Your task to perform on an android device: set default search engine in the chrome app Image 0: 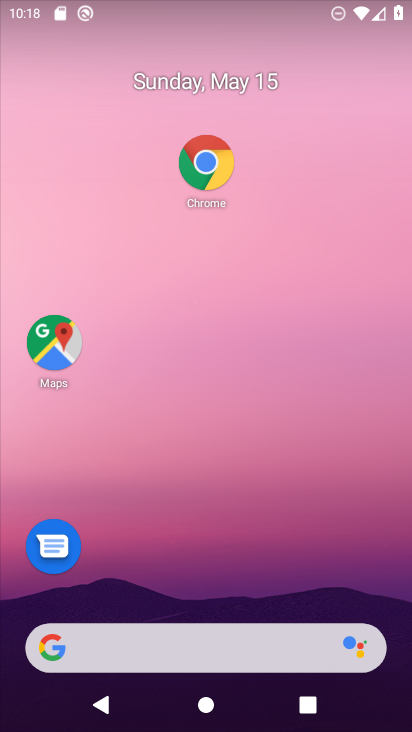
Step 0: click (211, 144)
Your task to perform on an android device: set default search engine in the chrome app Image 1: 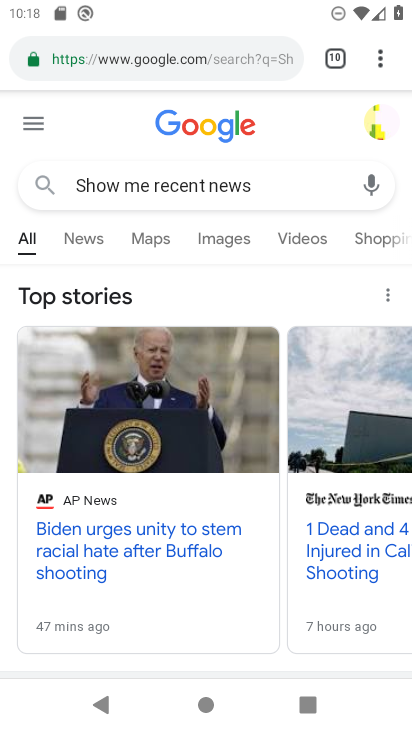
Step 1: click (370, 45)
Your task to perform on an android device: set default search engine in the chrome app Image 2: 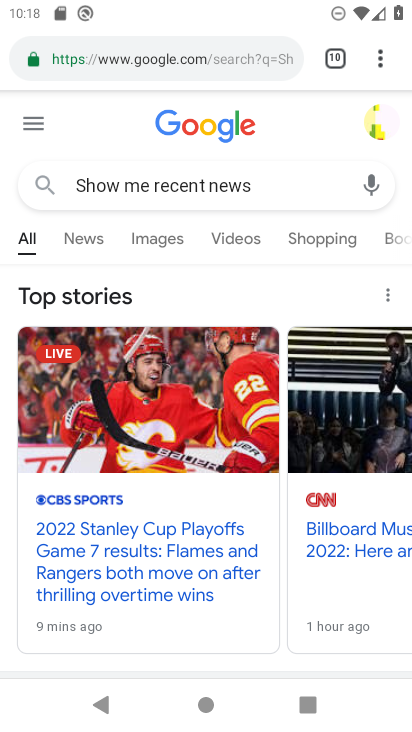
Step 2: click (369, 53)
Your task to perform on an android device: set default search engine in the chrome app Image 3: 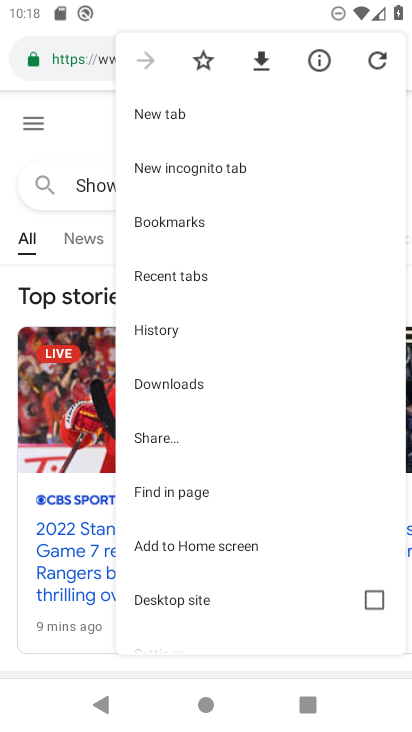
Step 3: drag from (210, 528) to (267, 167)
Your task to perform on an android device: set default search engine in the chrome app Image 4: 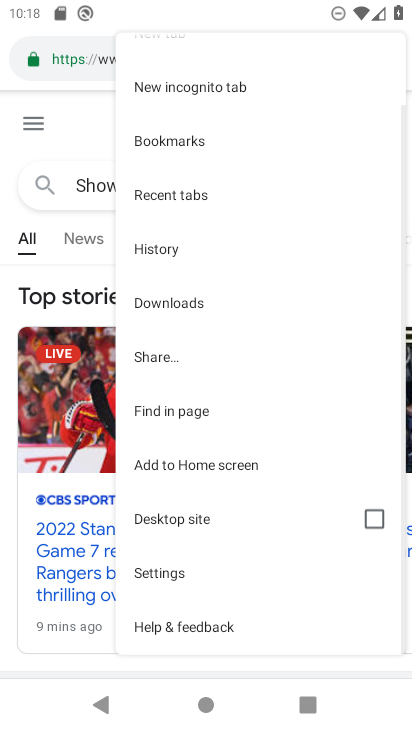
Step 4: click (196, 578)
Your task to perform on an android device: set default search engine in the chrome app Image 5: 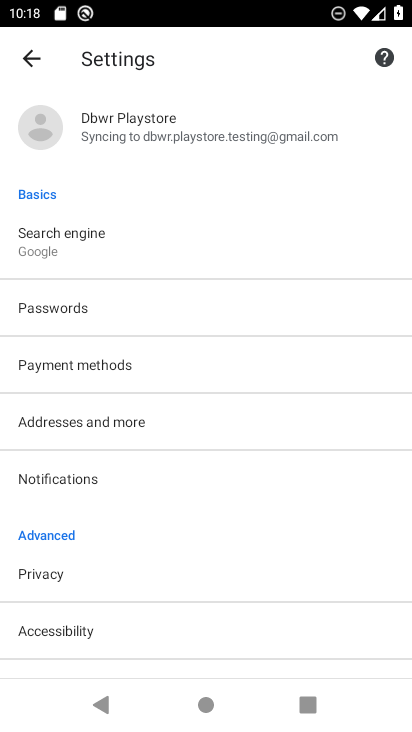
Step 5: drag from (108, 553) to (166, 268)
Your task to perform on an android device: set default search engine in the chrome app Image 6: 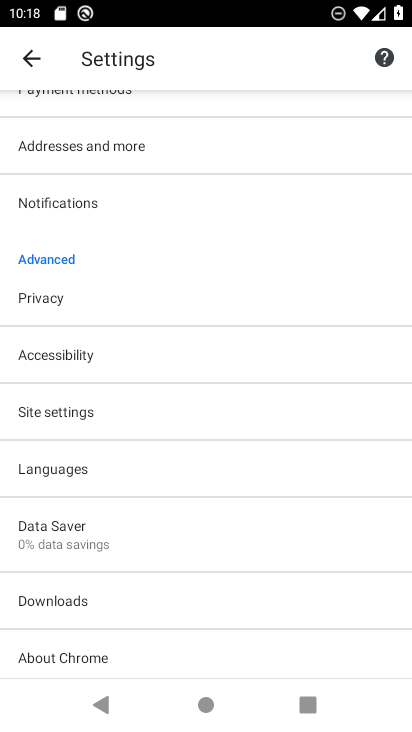
Step 6: click (114, 383)
Your task to perform on an android device: set default search engine in the chrome app Image 7: 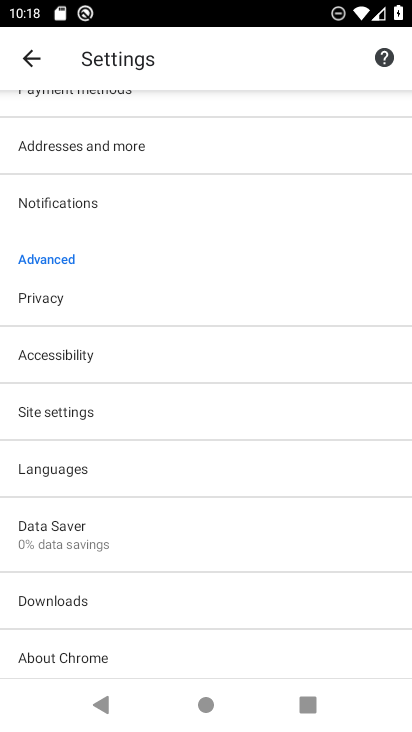
Step 7: click (103, 395)
Your task to perform on an android device: set default search engine in the chrome app Image 8: 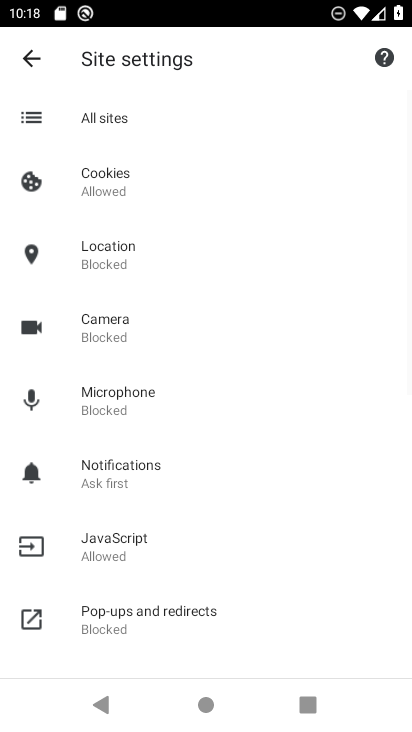
Step 8: click (131, 240)
Your task to perform on an android device: set default search engine in the chrome app Image 9: 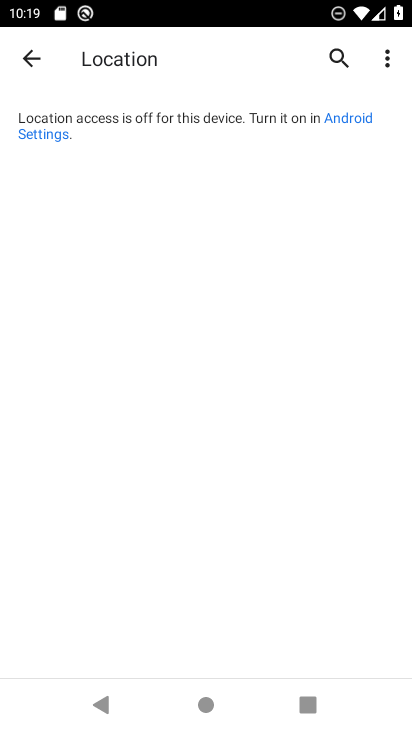
Step 9: task complete